Your task to perform on an android device: Do I have any events this weekend? Image 0: 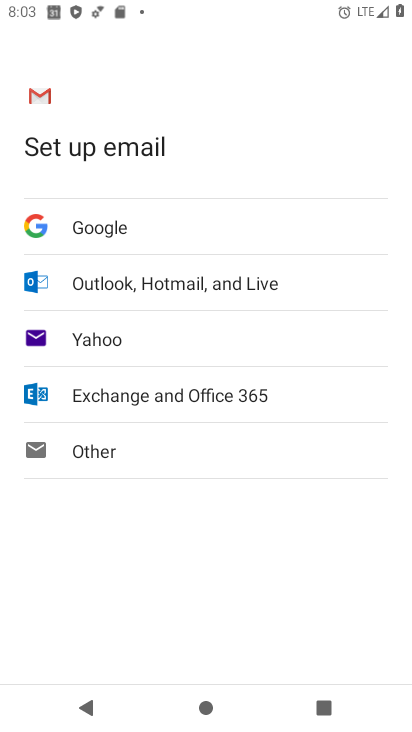
Step 0: press home button
Your task to perform on an android device: Do I have any events this weekend? Image 1: 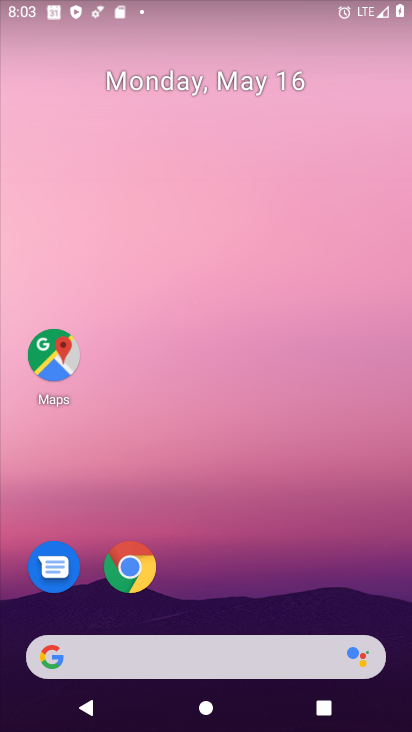
Step 1: drag from (147, 598) to (206, 157)
Your task to perform on an android device: Do I have any events this weekend? Image 2: 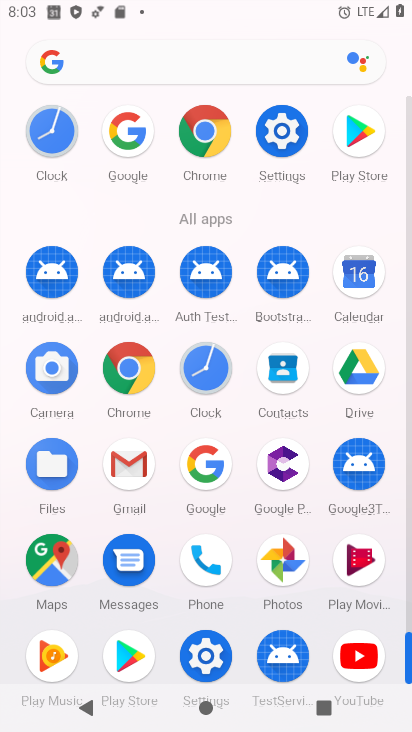
Step 2: click (377, 271)
Your task to perform on an android device: Do I have any events this weekend? Image 3: 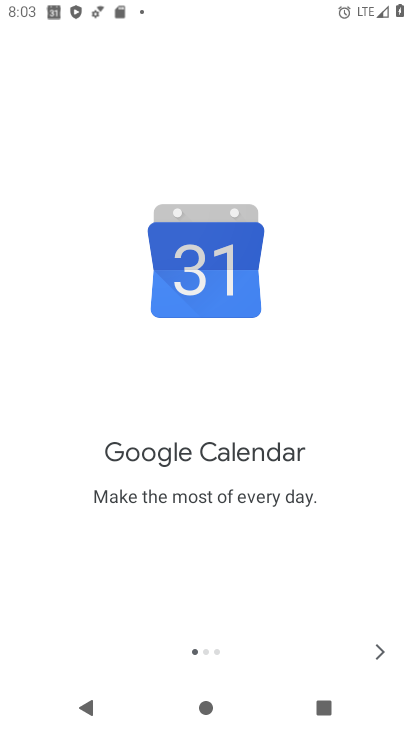
Step 3: click (373, 656)
Your task to perform on an android device: Do I have any events this weekend? Image 4: 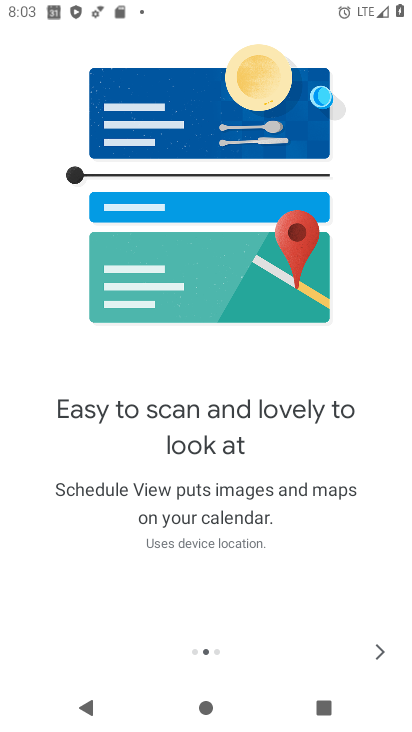
Step 4: click (383, 649)
Your task to perform on an android device: Do I have any events this weekend? Image 5: 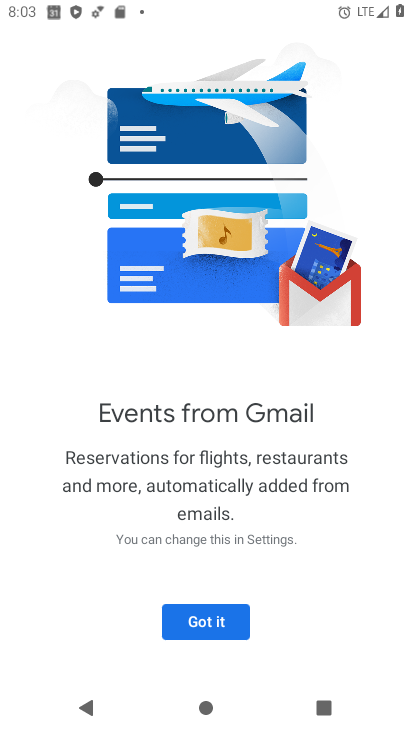
Step 5: click (200, 633)
Your task to perform on an android device: Do I have any events this weekend? Image 6: 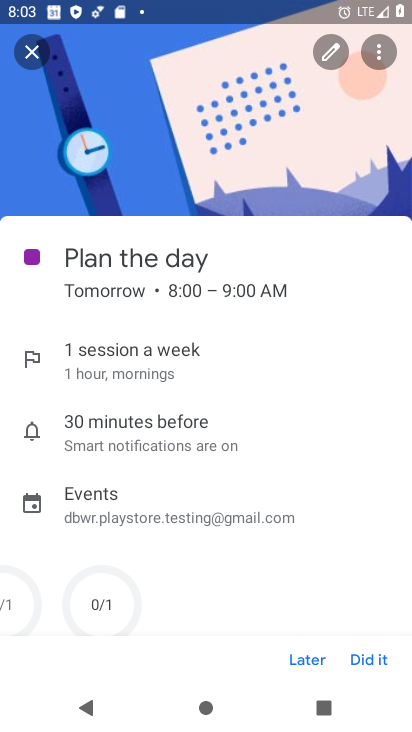
Step 6: click (199, 625)
Your task to perform on an android device: Do I have any events this weekend? Image 7: 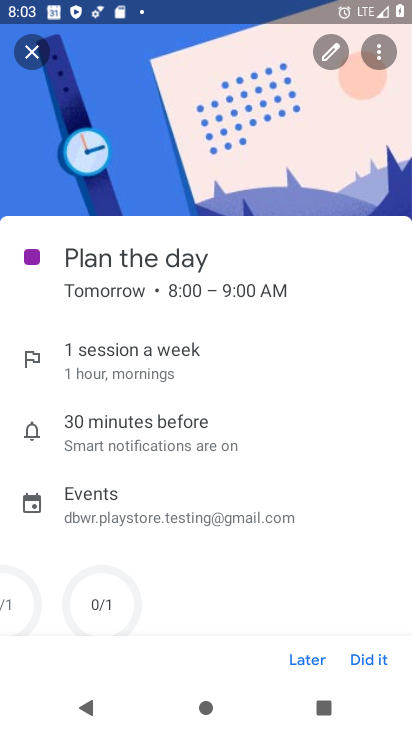
Step 7: click (33, 50)
Your task to perform on an android device: Do I have any events this weekend? Image 8: 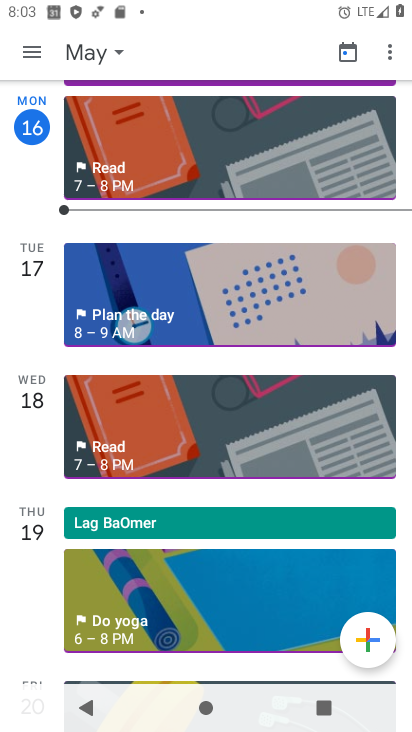
Step 8: drag from (132, 634) to (236, 248)
Your task to perform on an android device: Do I have any events this weekend? Image 9: 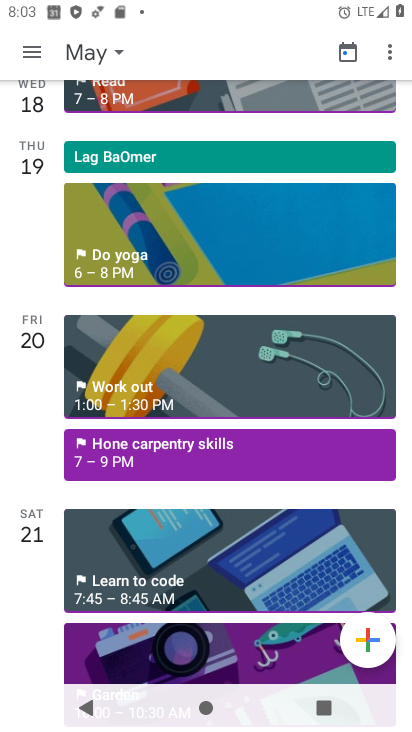
Step 9: drag from (140, 605) to (183, 234)
Your task to perform on an android device: Do I have any events this weekend? Image 10: 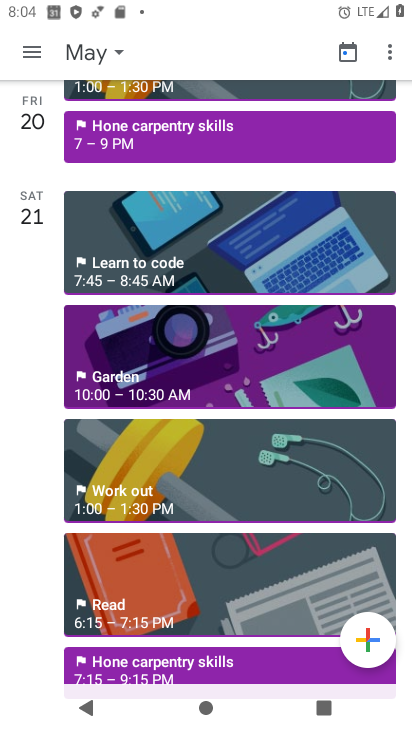
Step 10: drag from (166, 627) to (163, 565)
Your task to perform on an android device: Do I have any events this weekend? Image 11: 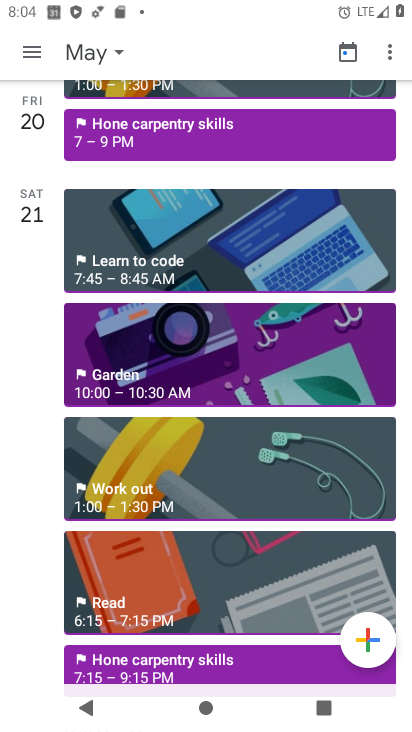
Step 11: click (184, 237)
Your task to perform on an android device: Do I have any events this weekend? Image 12: 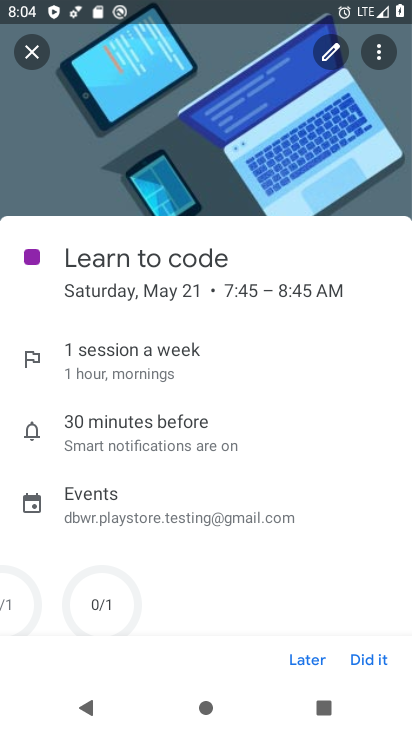
Step 12: task complete